Your task to perform on an android device: open chrome privacy settings Image 0: 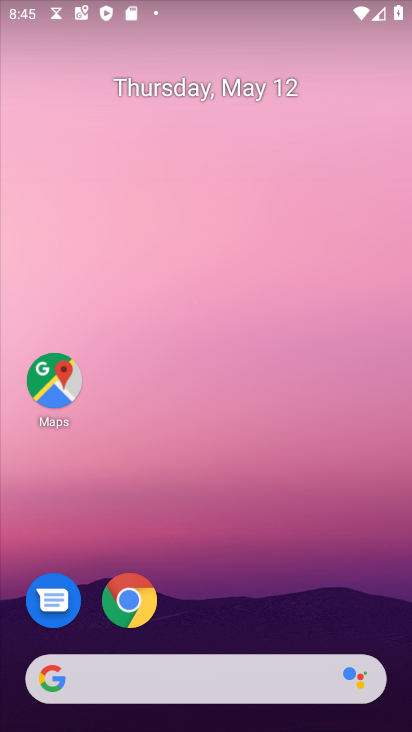
Step 0: click (123, 649)
Your task to perform on an android device: open chrome privacy settings Image 1: 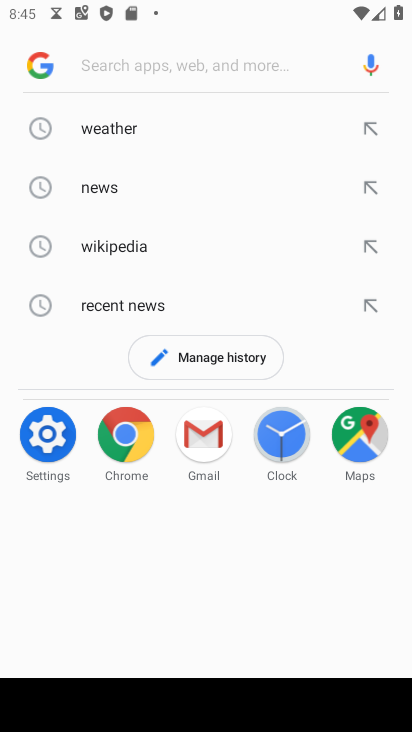
Step 1: press back button
Your task to perform on an android device: open chrome privacy settings Image 2: 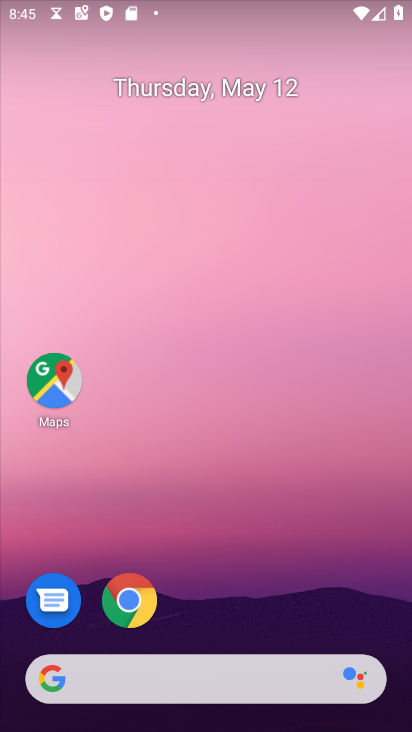
Step 2: click (129, 604)
Your task to perform on an android device: open chrome privacy settings Image 3: 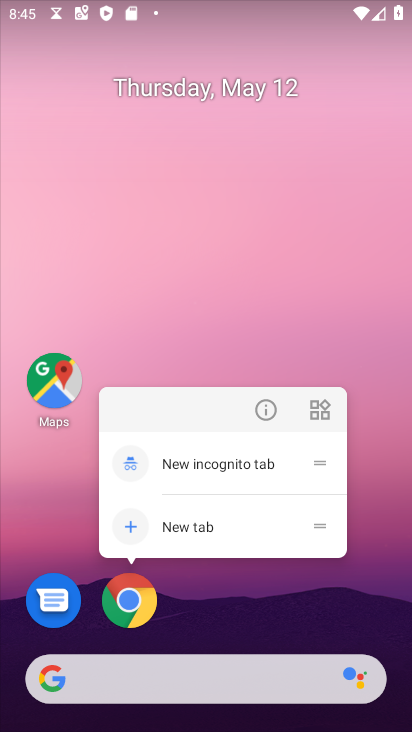
Step 3: click (140, 621)
Your task to perform on an android device: open chrome privacy settings Image 4: 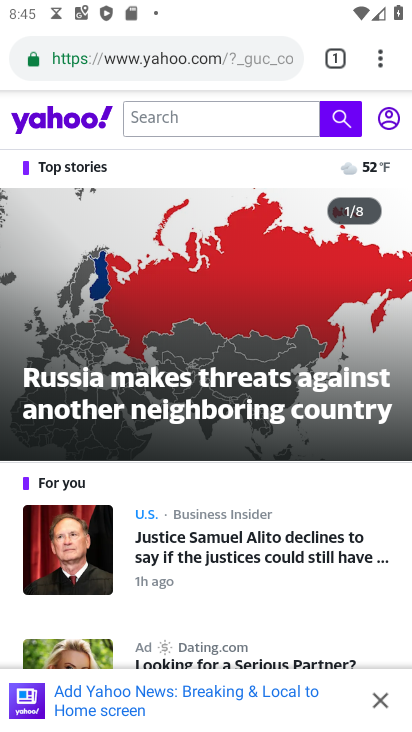
Step 4: click (375, 52)
Your task to perform on an android device: open chrome privacy settings Image 5: 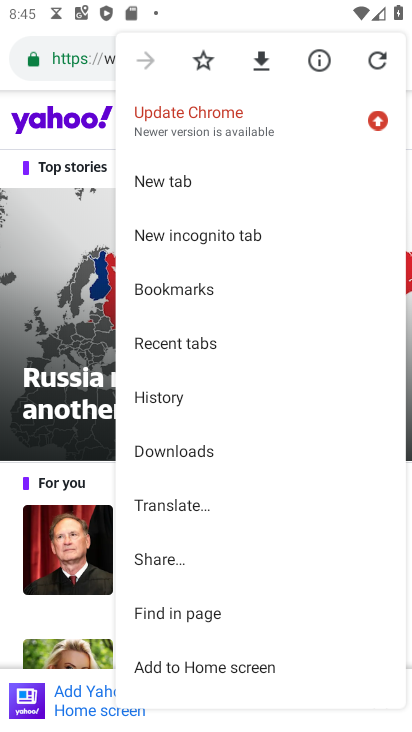
Step 5: drag from (218, 599) to (226, 305)
Your task to perform on an android device: open chrome privacy settings Image 6: 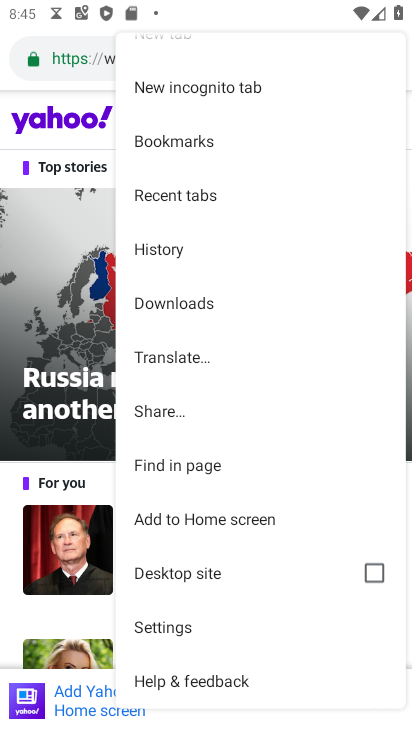
Step 6: drag from (191, 664) to (202, 451)
Your task to perform on an android device: open chrome privacy settings Image 7: 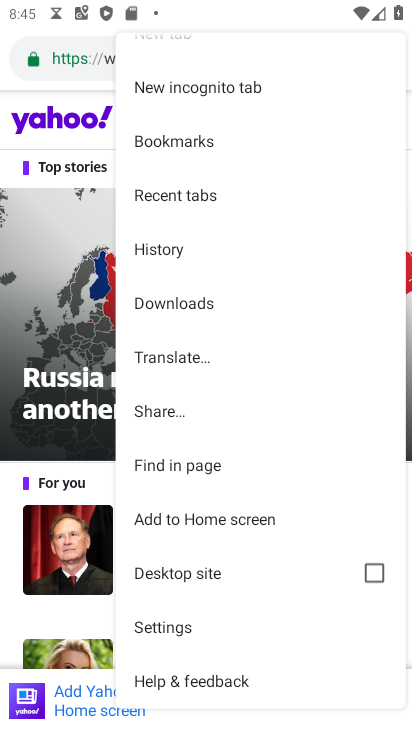
Step 7: drag from (253, 624) to (259, 308)
Your task to perform on an android device: open chrome privacy settings Image 8: 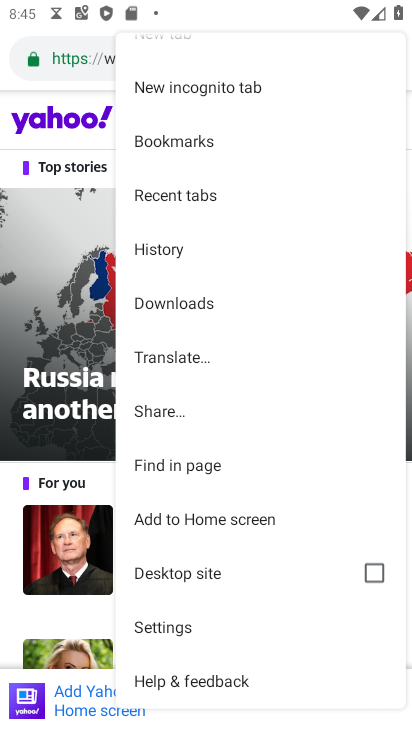
Step 8: drag from (303, 560) to (287, 165)
Your task to perform on an android device: open chrome privacy settings Image 9: 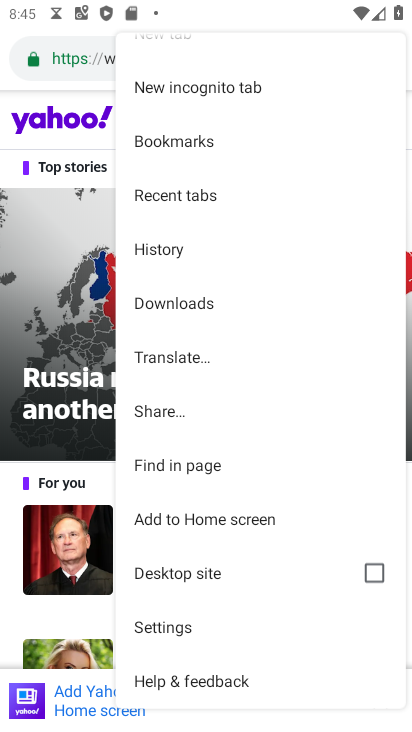
Step 9: drag from (195, 632) to (282, 222)
Your task to perform on an android device: open chrome privacy settings Image 10: 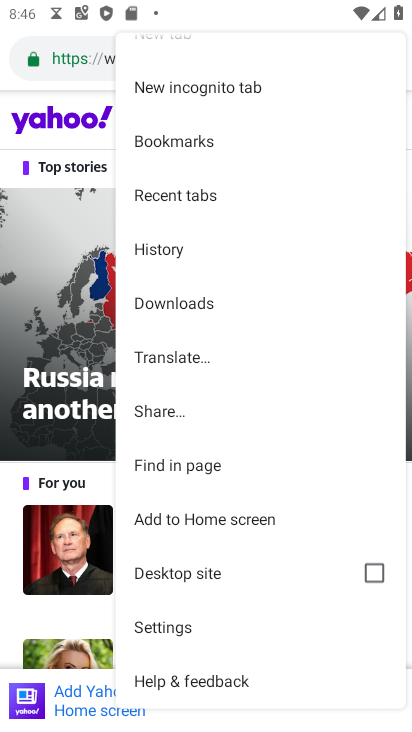
Step 10: drag from (274, 638) to (294, 259)
Your task to perform on an android device: open chrome privacy settings Image 11: 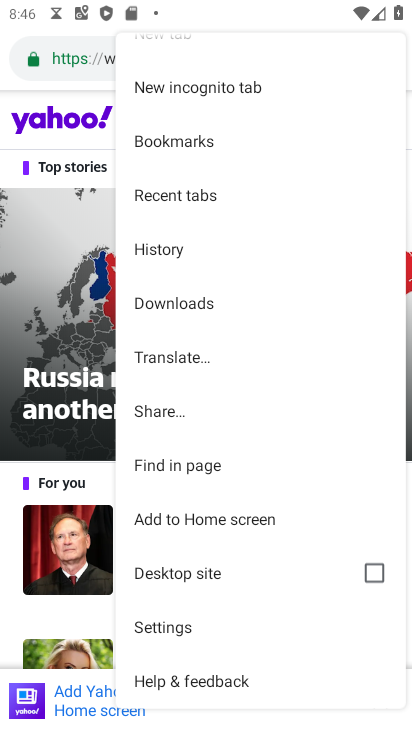
Step 11: drag from (249, 442) to (288, 186)
Your task to perform on an android device: open chrome privacy settings Image 12: 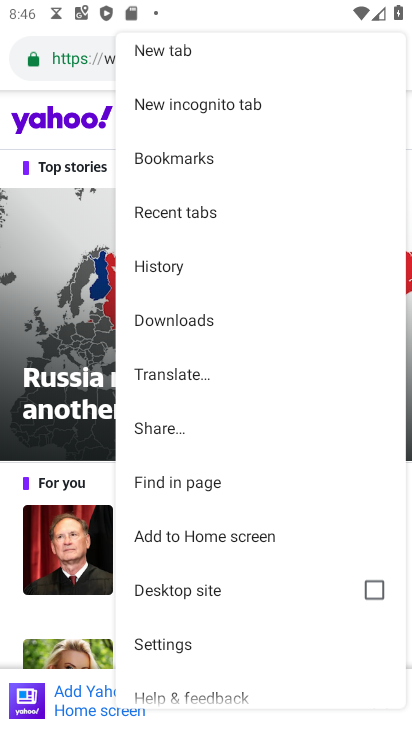
Step 12: click (188, 642)
Your task to perform on an android device: open chrome privacy settings Image 13: 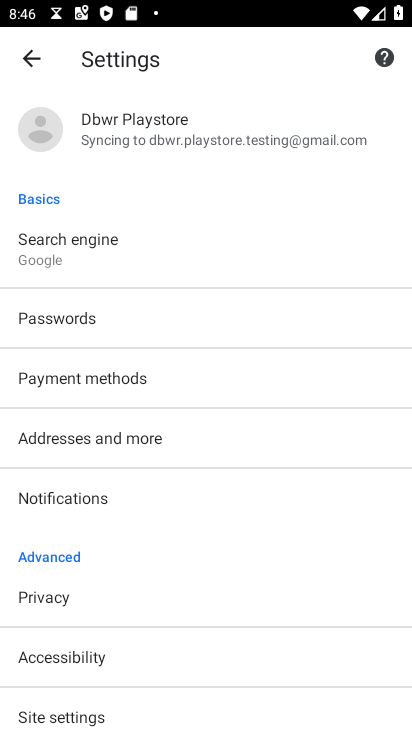
Step 13: click (76, 600)
Your task to perform on an android device: open chrome privacy settings Image 14: 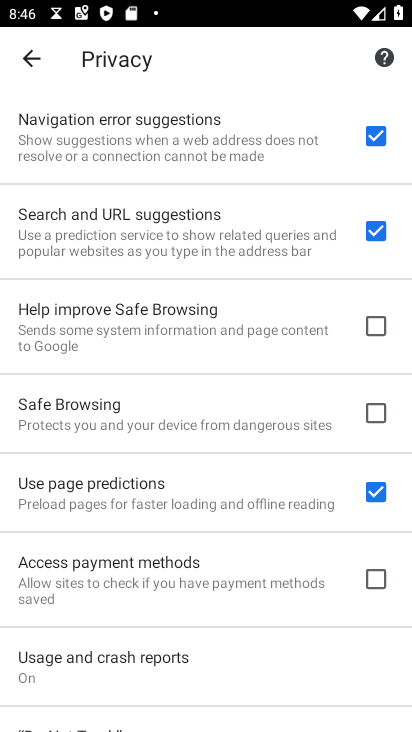
Step 14: task complete